Your task to perform on an android device: open a bookmark in the chrome app Image 0: 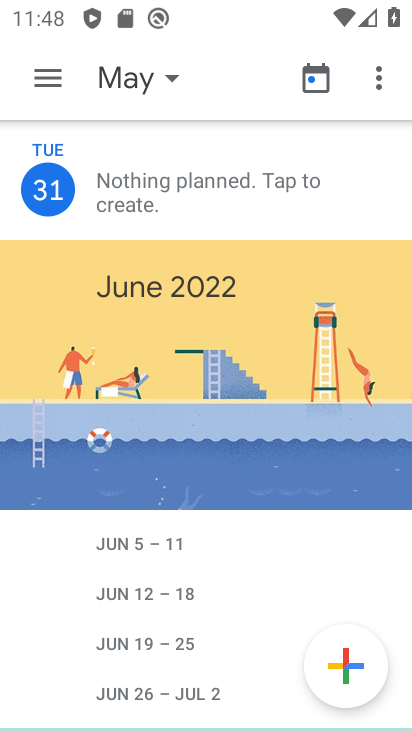
Step 0: press back button
Your task to perform on an android device: open a bookmark in the chrome app Image 1: 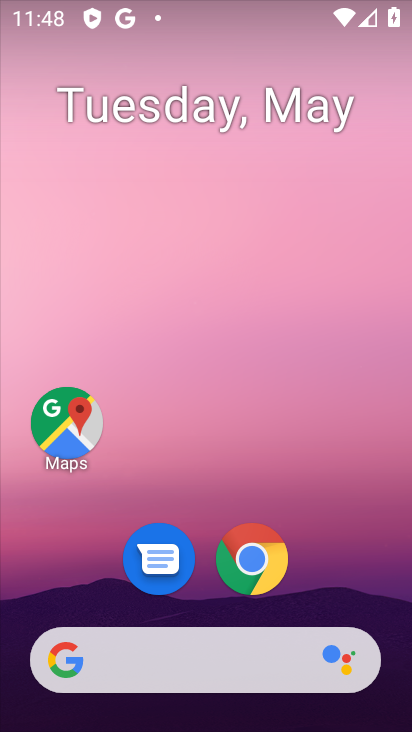
Step 1: click (253, 558)
Your task to perform on an android device: open a bookmark in the chrome app Image 2: 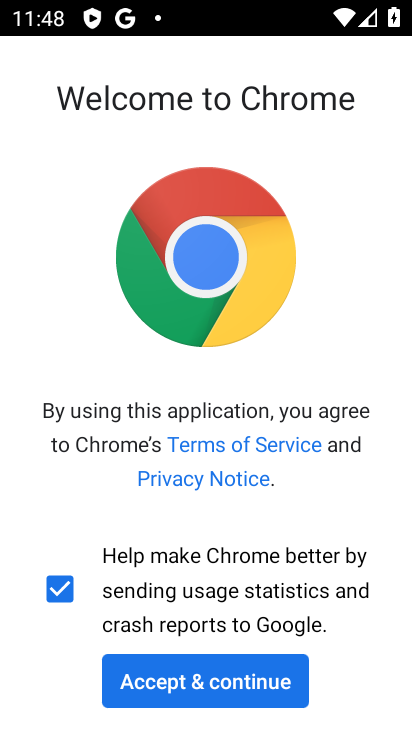
Step 2: click (209, 681)
Your task to perform on an android device: open a bookmark in the chrome app Image 3: 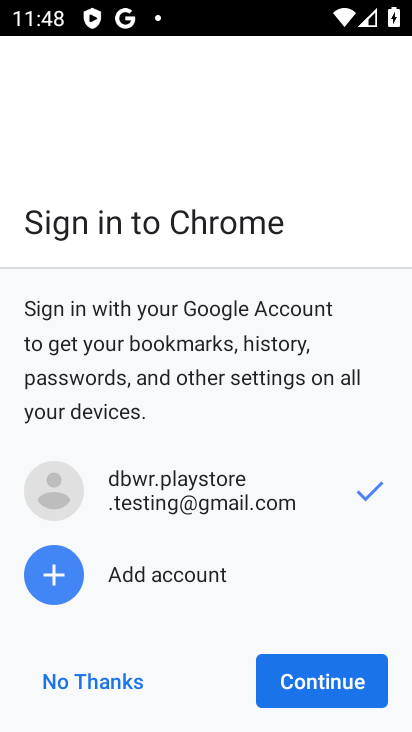
Step 3: click (309, 677)
Your task to perform on an android device: open a bookmark in the chrome app Image 4: 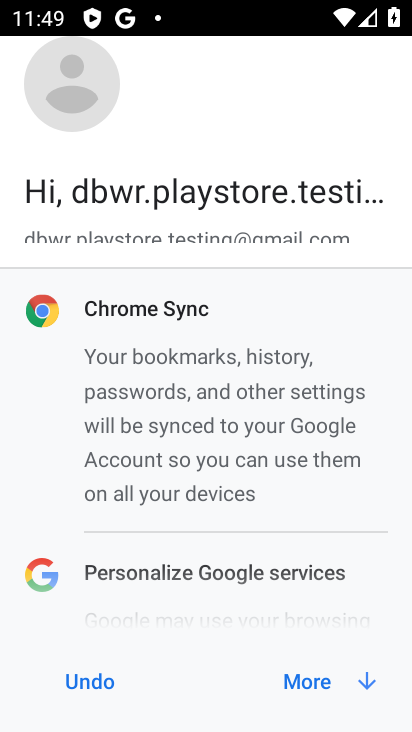
Step 4: click (309, 677)
Your task to perform on an android device: open a bookmark in the chrome app Image 5: 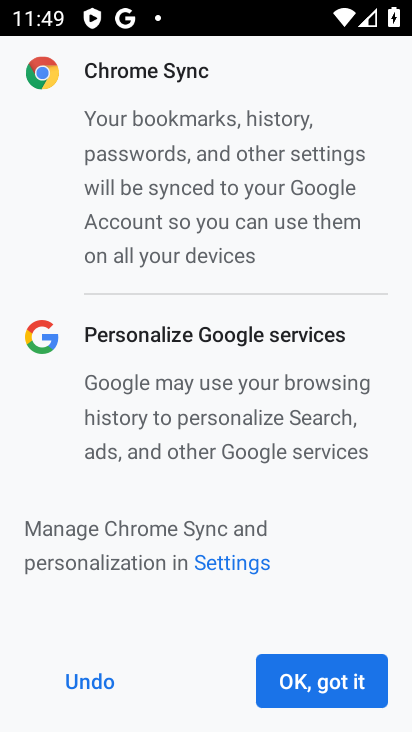
Step 5: click (309, 677)
Your task to perform on an android device: open a bookmark in the chrome app Image 6: 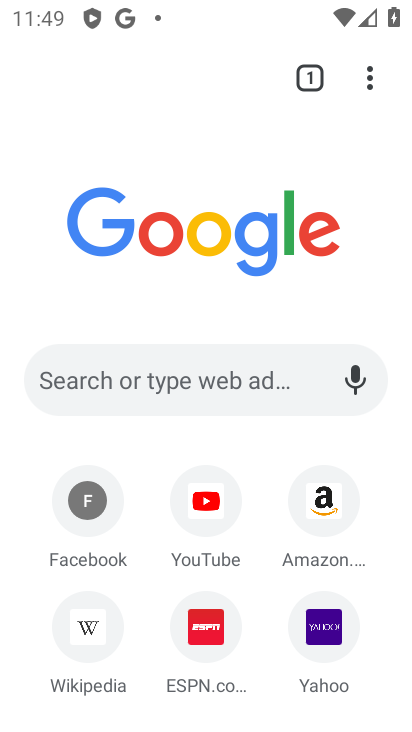
Step 6: click (373, 78)
Your task to perform on an android device: open a bookmark in the chrome app Image 7: 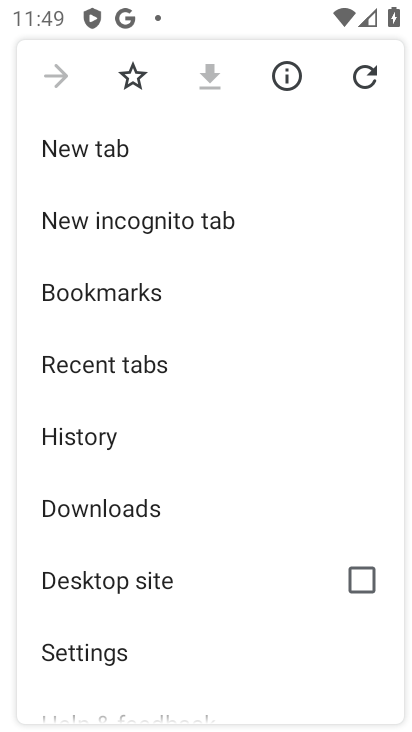
Step 7: click (129, 291)
Your task to perform on an android device: open a bookmark in the chrome app Image 8: 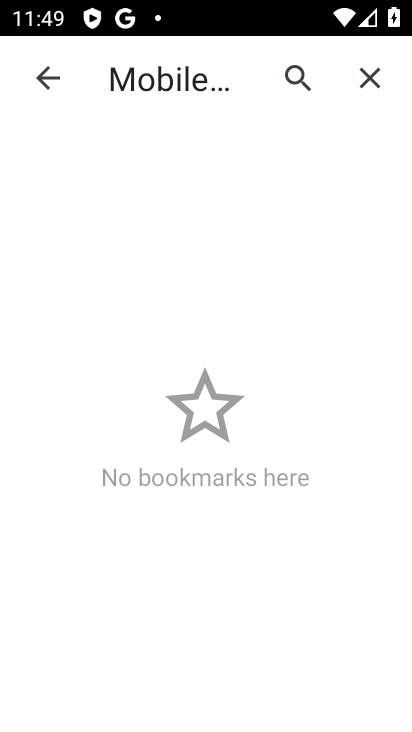
Step 8: task complete